Your task to perform on an android device: turn on sleep mode Image 0: 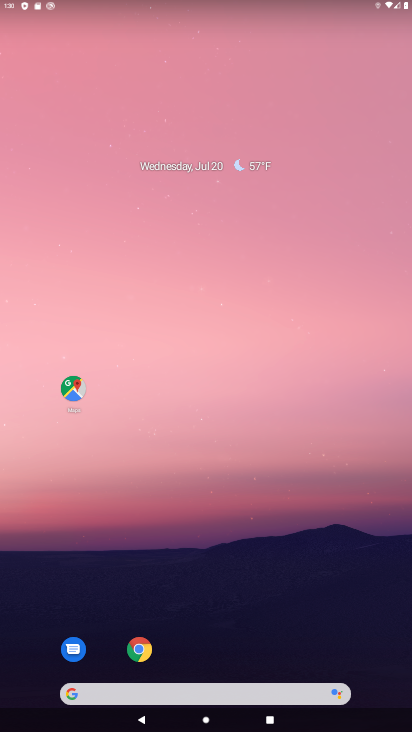
Step 0: drag from (229, 639) to (256, 13)
Your task to perform on an android device: turn on sleep mode Image 1: 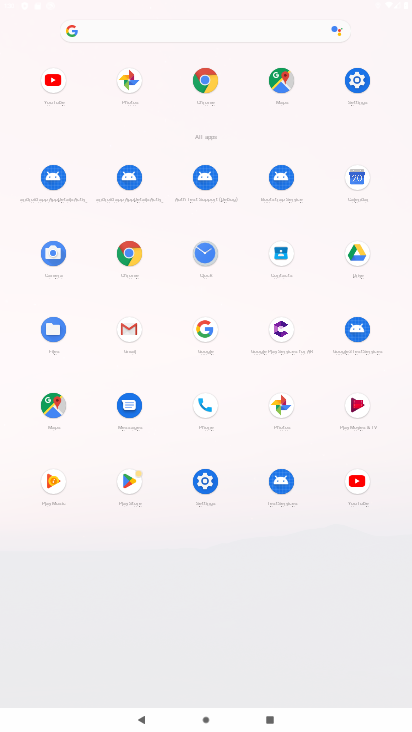
Step 1: click (357, 77)
Your task to perform on an android device: turn on sleep mode Image 2: 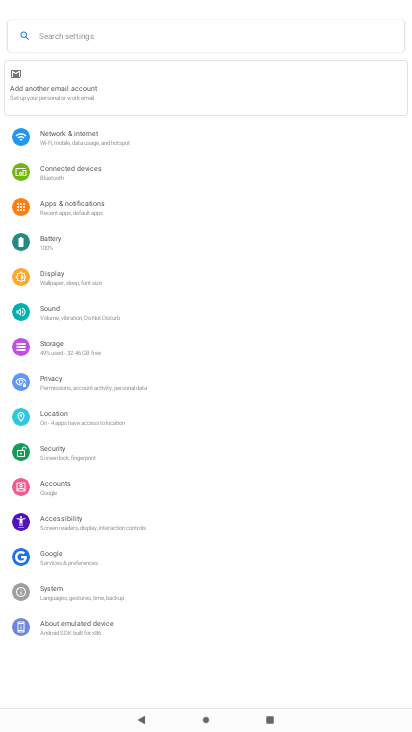
Step 2: task complete